Your task to perform on an android device: turn off data saver in the chrome app Image 0: 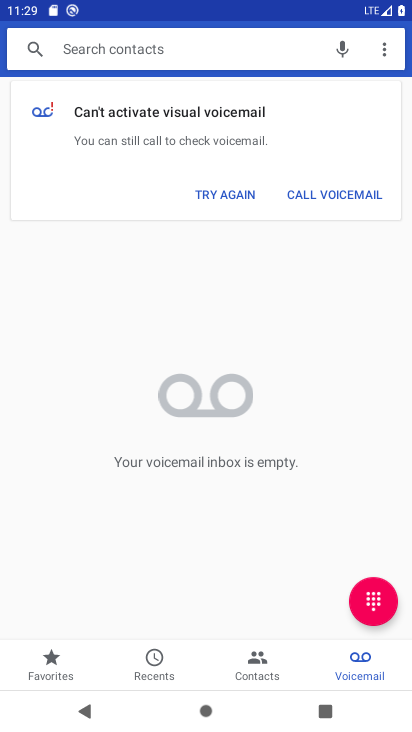
Step 0: press home button
Your task to perform on an android device: turn off data saver in the chrome app Image 1: 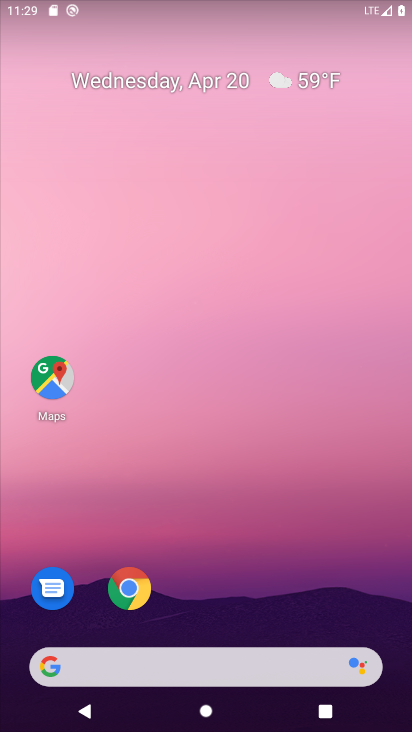
Step 1: click (135, 589)
Your task to perform on an android device: turn off data saver in the chrome app Image 2: 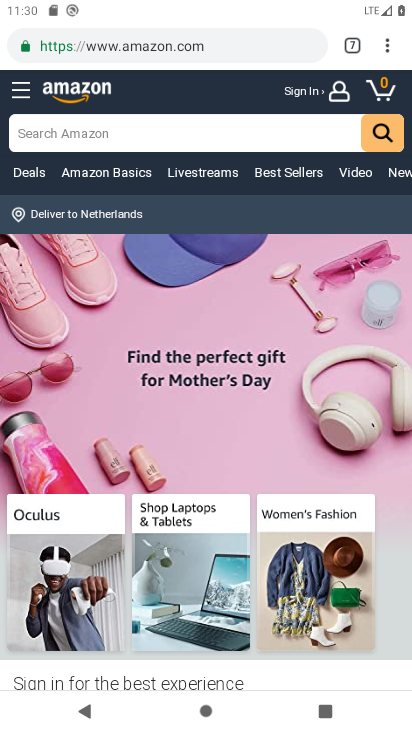
Step 2: click (386, 45)
Your task to perform on an android device: turn off data saver in the chrome app Image 3: 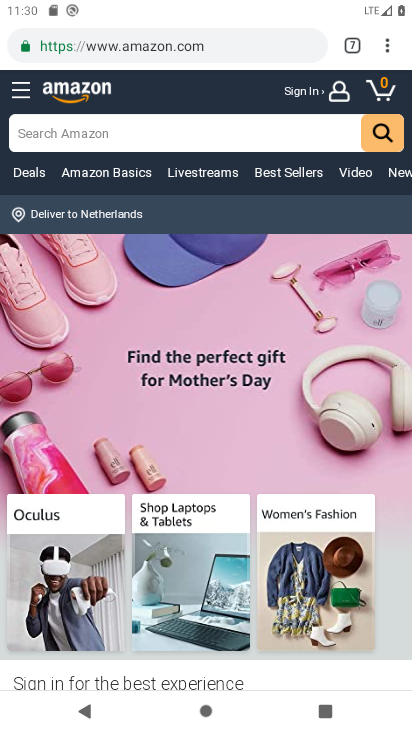
Step 3: click (390, 46)
Your task to perform on an android device: turn off data saver in the chrome app Image 4: 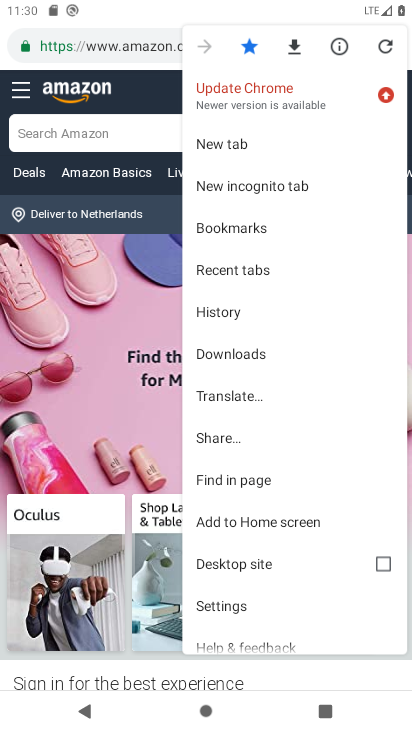
Step 4: click (234, 603)
Your task to perform on an android device: turn off data saver in the chrome app Image 5: 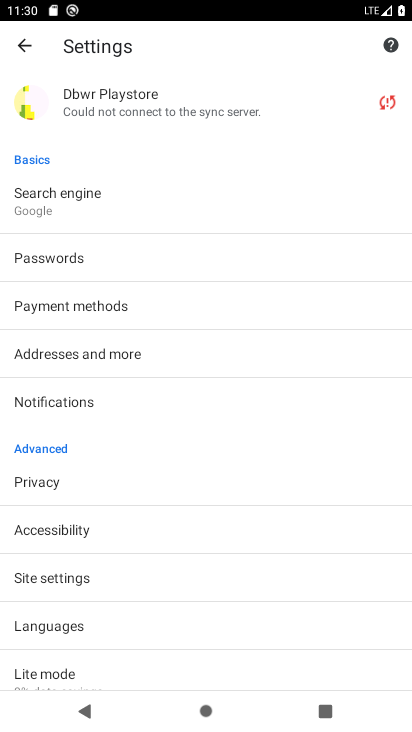
Step 5: drag from (156, 614) to (178, 155)
Your task to perform on an android device: turn off data saver in the chrome app Image 6: 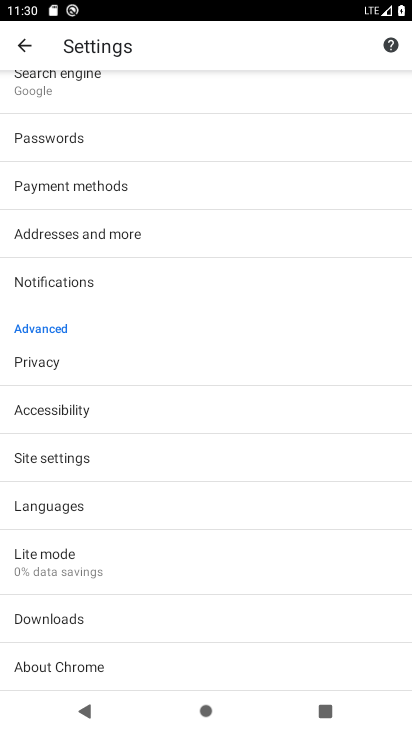
Step 6: click (37, 549)
Your task to perform on an android device: turn off data saver in the chrome app Image 7: 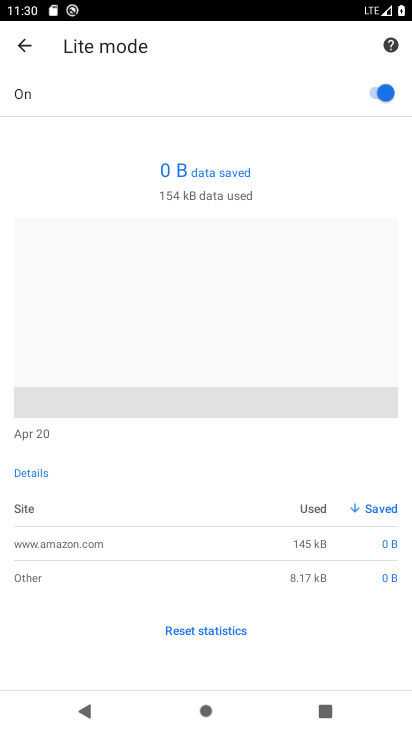
Step 7: click (376, 99)
Your task to perform on an android device: turn off data saver in the chrome app Image 8: 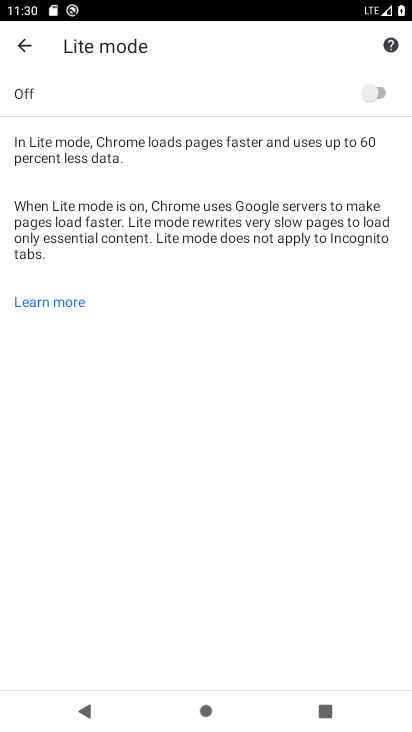
Step 8: task complete